Your task to perform on an android device: Is it going to rain this weekend? Image 0: 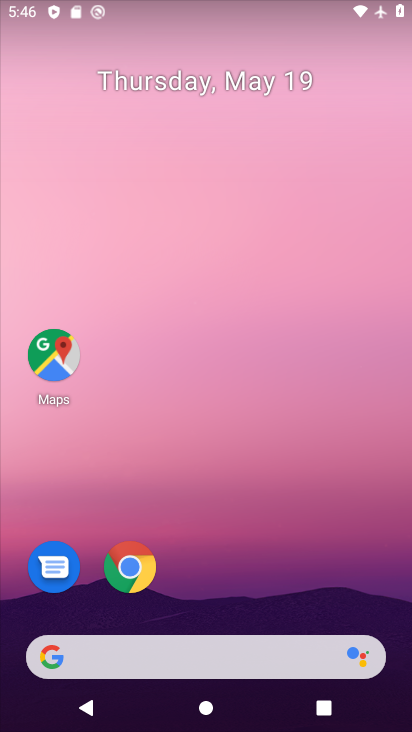
Step 0: drag from (268, 330) to (383, 389)
Your task to perform on an android device: Is it going to rain this weekend? Image 1: 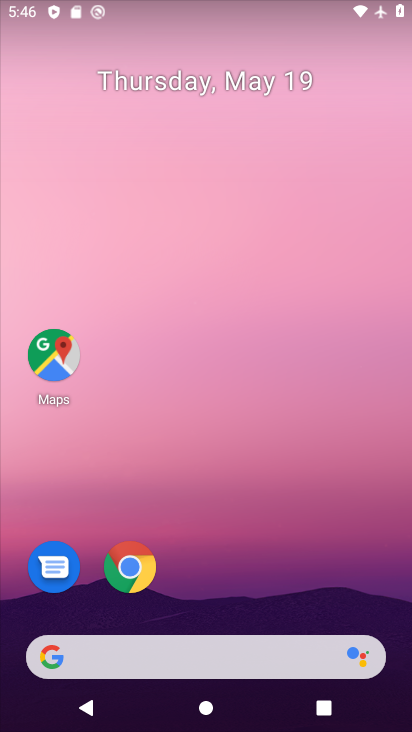
Step 1: drag from (31, 194) to (406, 471)
Your task to perform on an android device: Is it going to rain this weekend? Image 2: 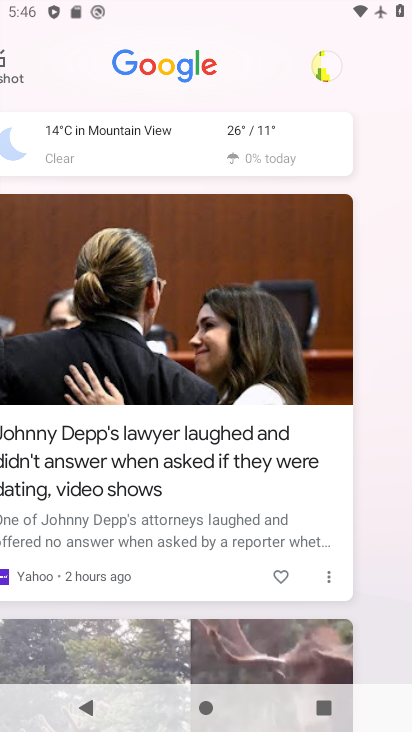
Step 2: click (26, 193)
Your task to perform on an android device: Is it going to rain this weekend? Image 3: 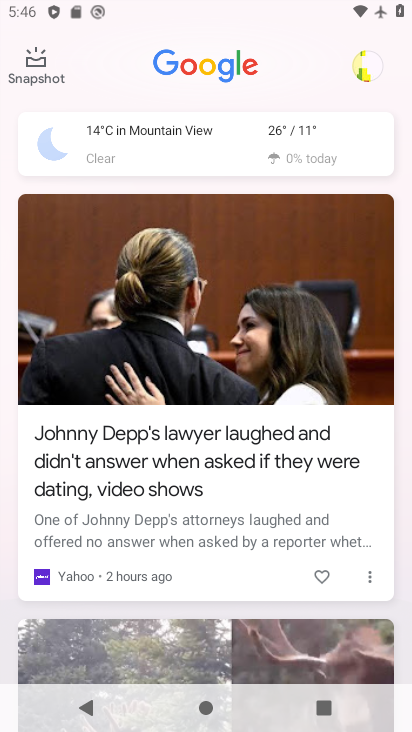
Step 3: click (139, 144)
Your task to perform on an android device: Is it going to rain this weekend? Image 4: 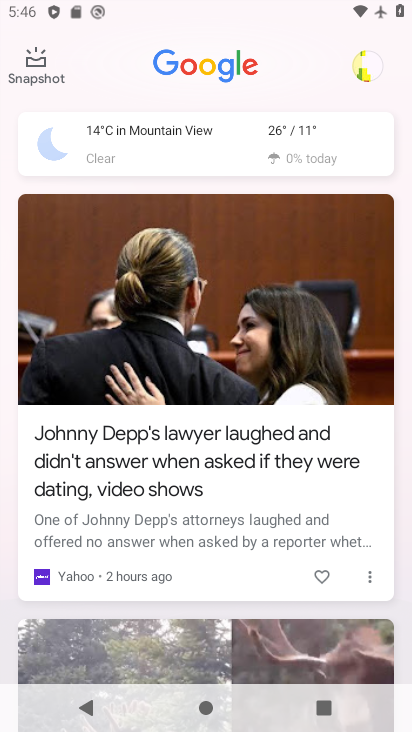
Step 4: click (141, 141)
Your task to perform on an android device: Is it going to rain this weekend? Image 5: 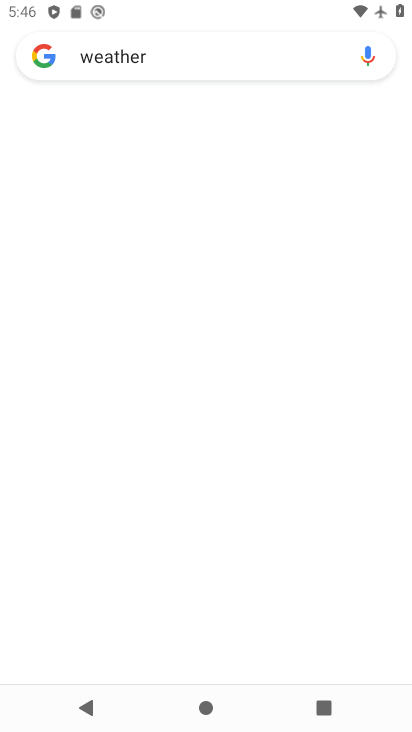
Step 5: click (143, 141)
Your task to perform on an android device: Is it going to rain this weekend? Image 6: 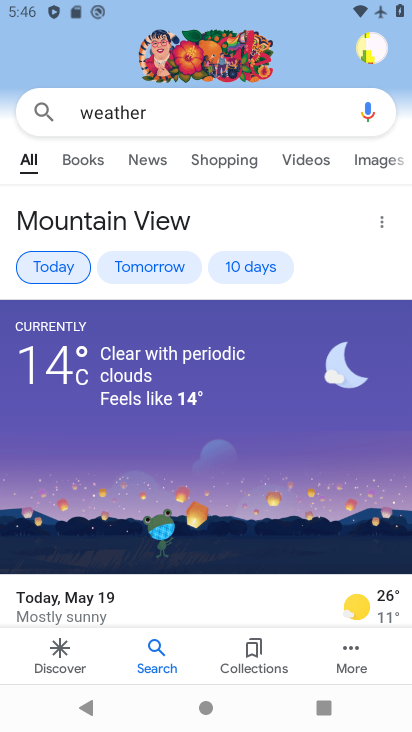
Step 6: click (165, 271)
Your task to perform on an android device: Is it going to rain this weekend? Image 7: 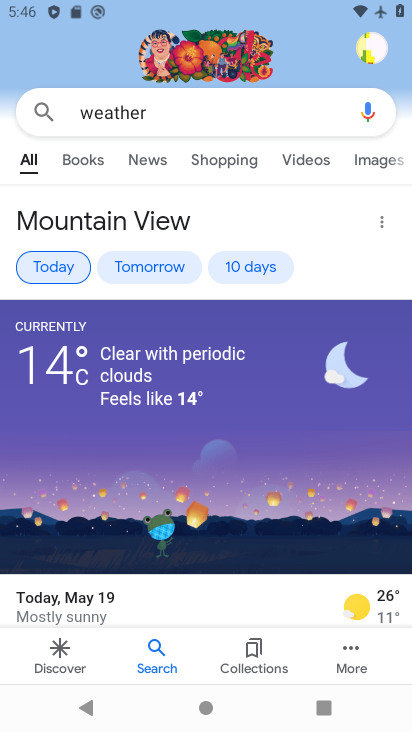
Step 7: click (166, 270)
Your task to perform on an android device: Is it going to rain this weekend? Image 8: 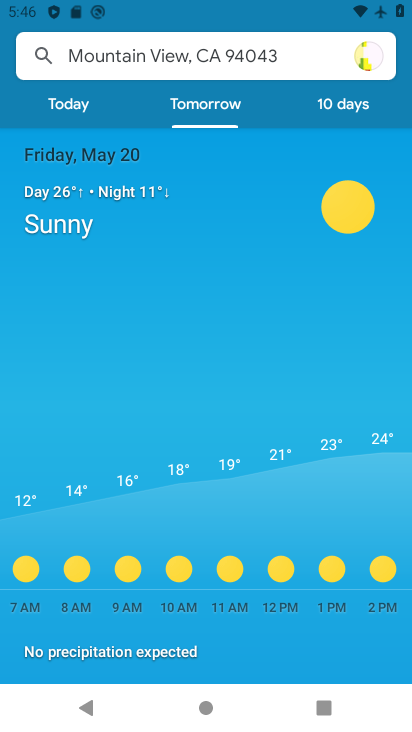
Step 8: task complete